Your task to perform on an android device: visit the assistant section in the google photos Image 0: 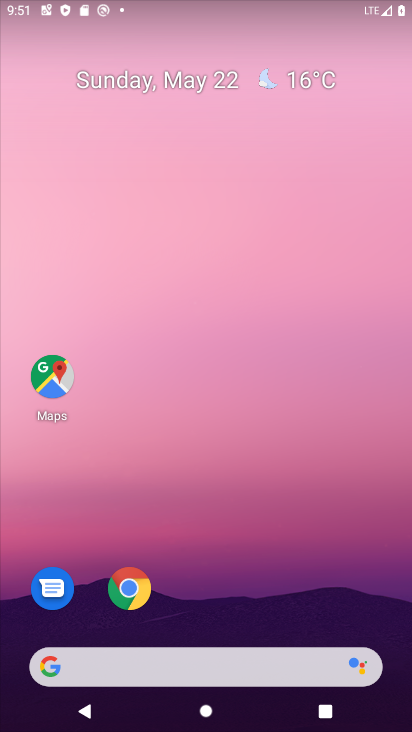
Step 0: drag from (224, 615) to (281, 180)
Your task to perform on an android device: visit the assistant section in the google photos Image 1: 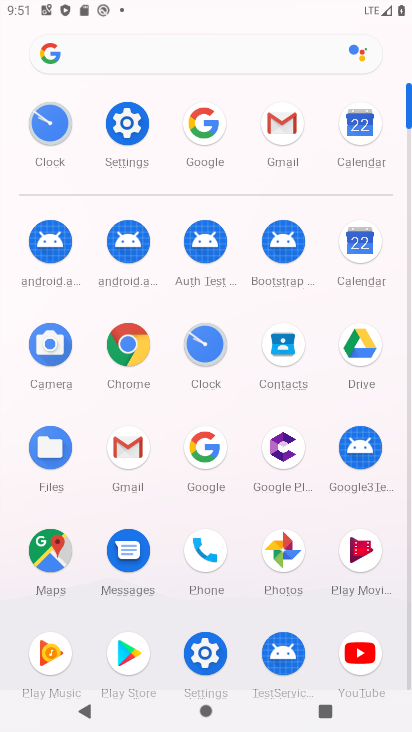
Step 1: click (294, 546)
Your task to perform on an android device: visit the assistant section in the google photos Image 2: 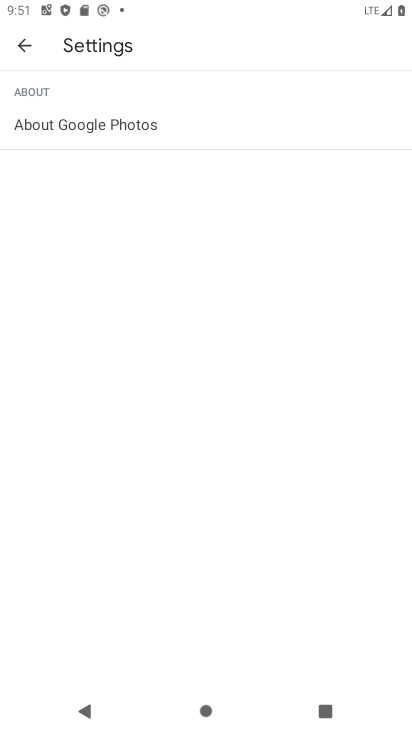
Step 2: click (24, 35)
Your task to perform on an android device: visit the assistant section in the google photos Image 3: 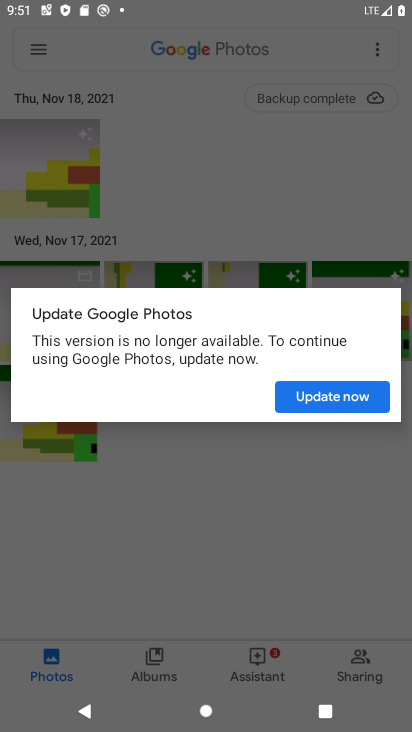
Step 3: click (326, 397)
Your task to perform on an android device: visit the assistant section in the google photos Image 4: 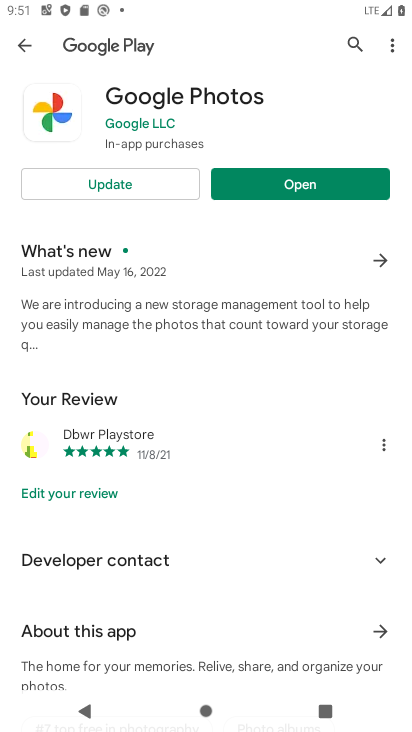
Step 4: click (21, 46)
Your task to perform on an android device: visit the assistant section in the google photos Image 5: 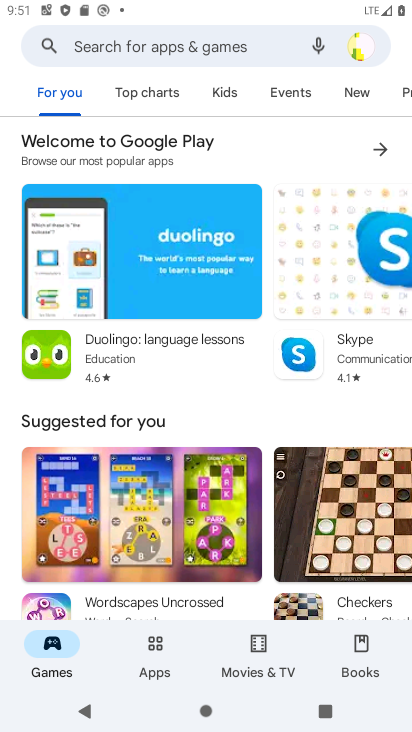
Step 5: press back button
Your task to perform on an android device: visit the assistant section in the google photos Image 6: 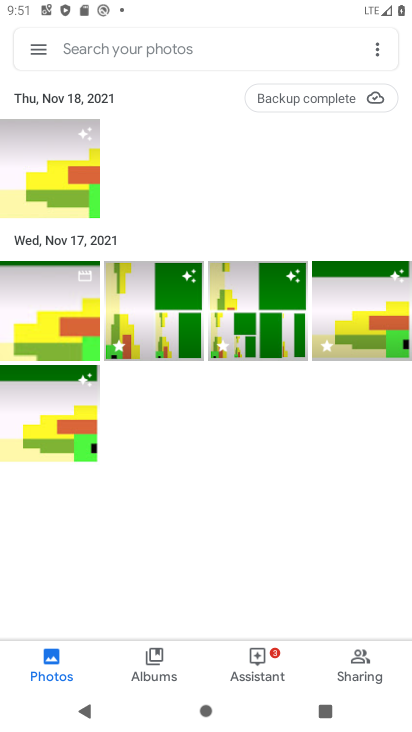
Step 6: click (266, 661)
Your task to perform on an android device: visit the assistant section in the google photos Image 7: 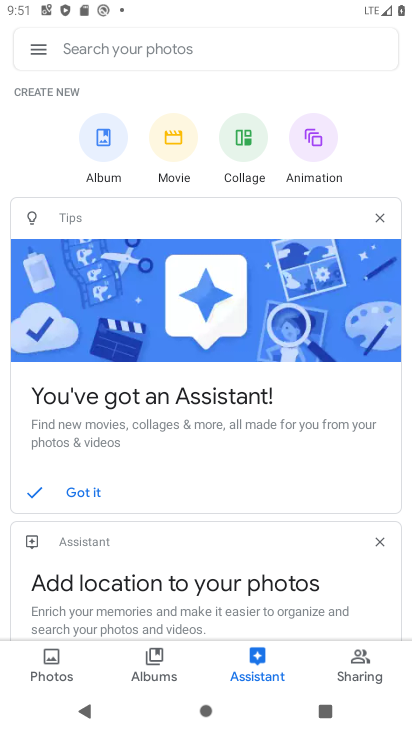
Step 7: task complete